Your task to perform on an android device: Show me popular videos on Youtube Image 0: 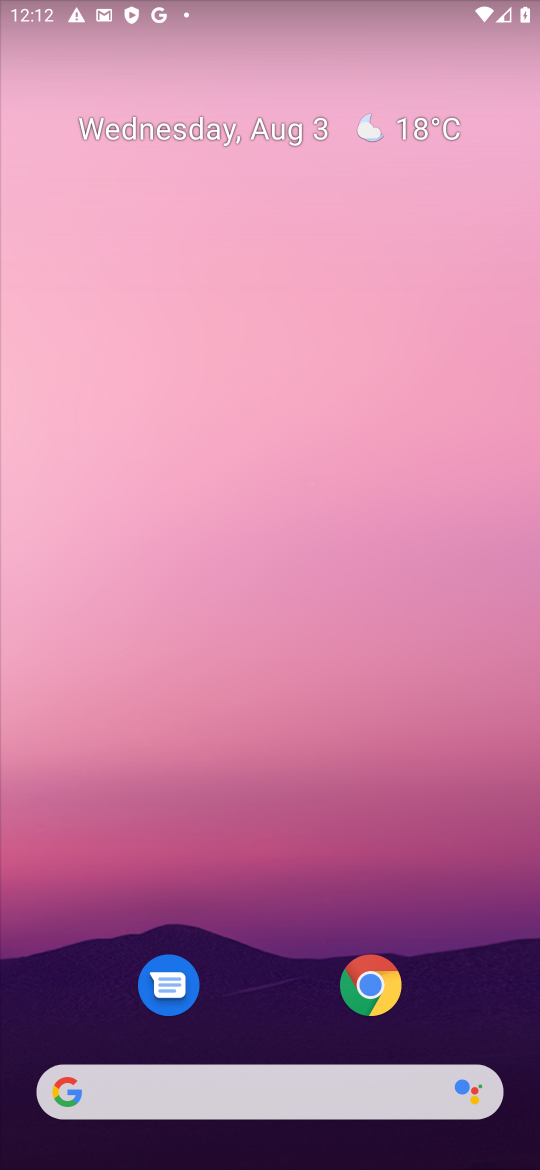
Step 0: drag from (216, 1007) to (16, 1)
Your task to perform on an android device: Show me popular videos on Youtube Image 1: 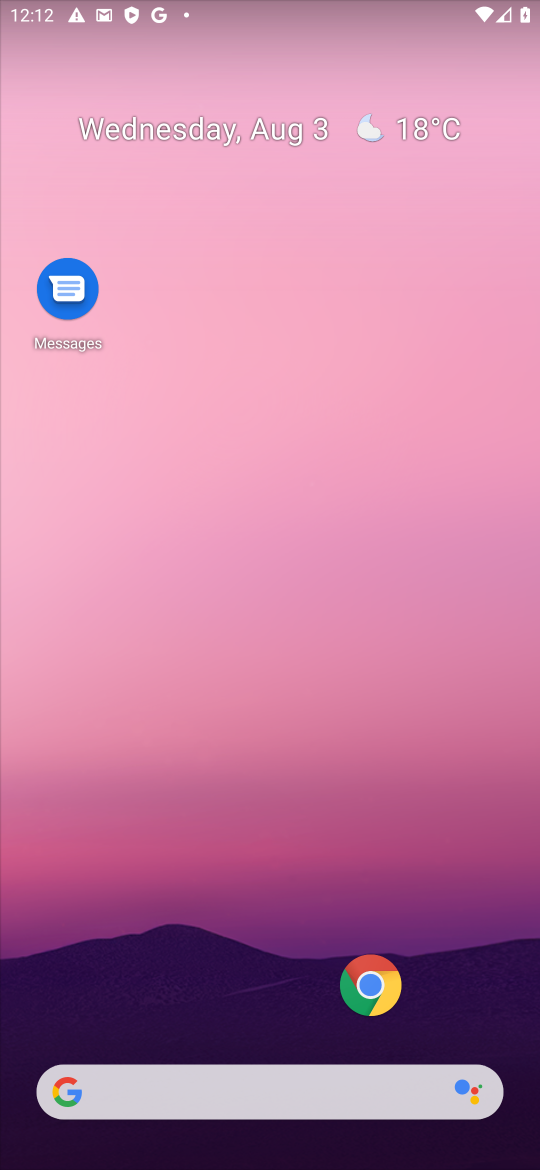
Step 1: click (252, 1003)
Your task to perform on an android device: Show me popular videos on Youtube Image 2: 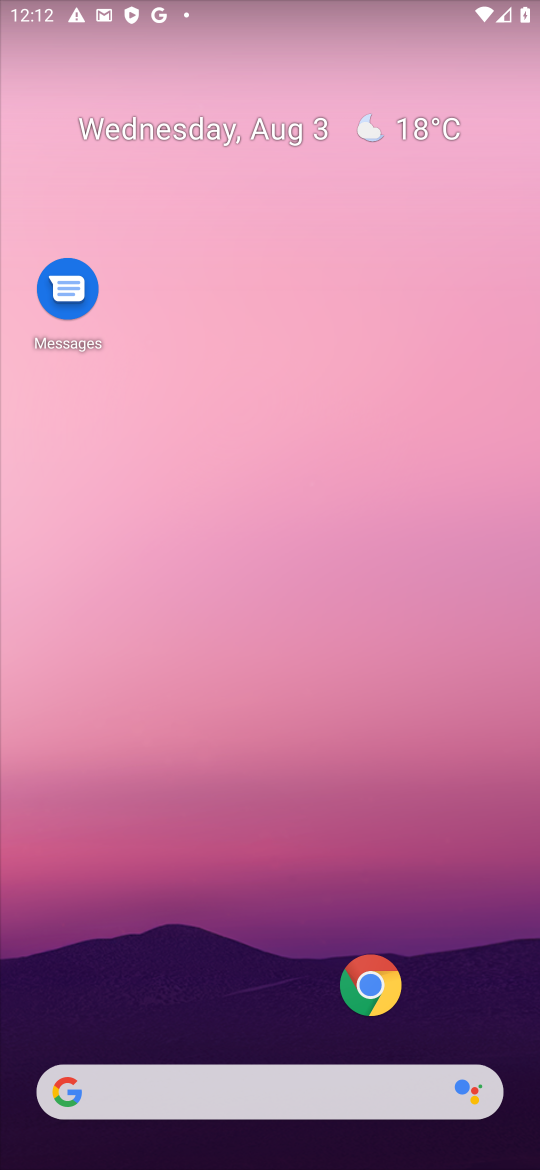
Step 2: drag from (252, 1003) to (249, 438)
Your task to perform on an android device: Show me popular videos on Youtube Image 3: 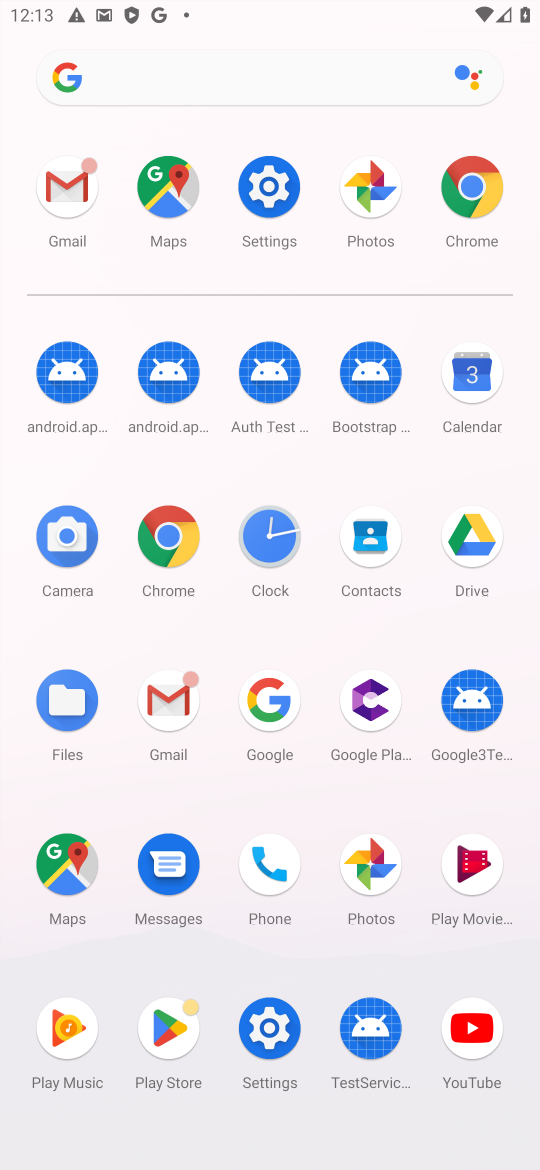
Step 3: click (475, 1052)
Your task to perform on an android device: Show me popular videos on Youtube Image 4: 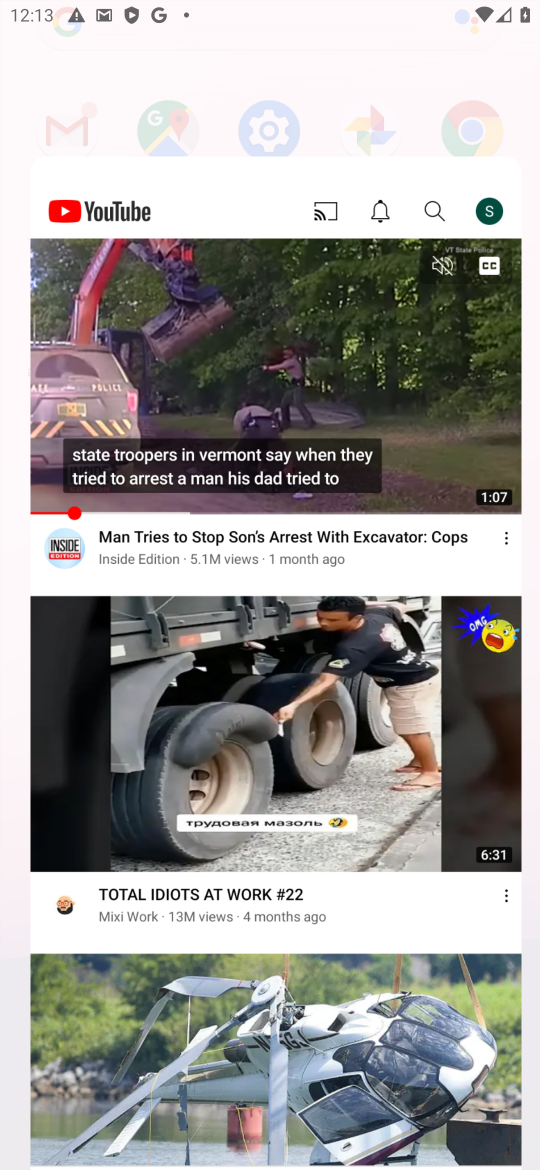
Step 4: task complete